Your task to perform on an android device: Open CNN.com Image 0: 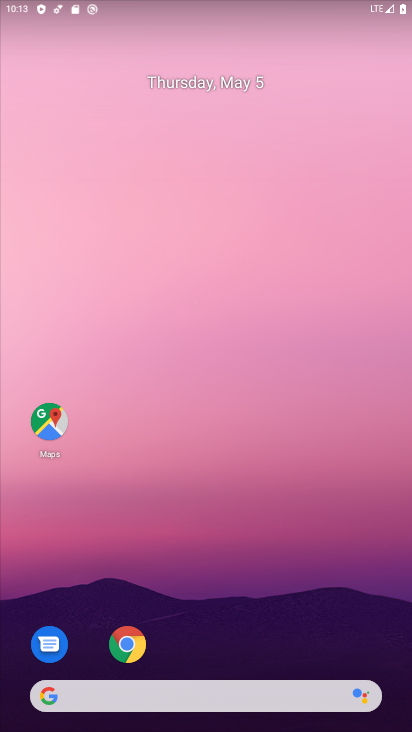
Step 0: click (139, 642)
Your task to perform on an android device: Open CNN.com Image 1: 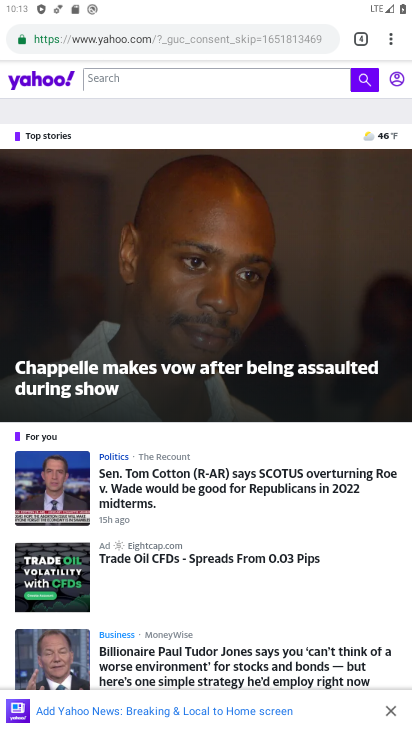
Step 1: click (359, 32)
Your task to perform on an android device: Open CNN.com Image 2: 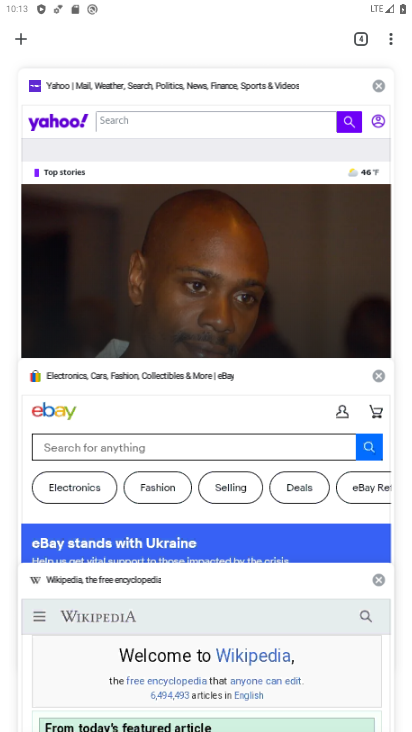
Step 2: click (26, 37)
Your task to perform on an android device: Open CNN.com Image 3: 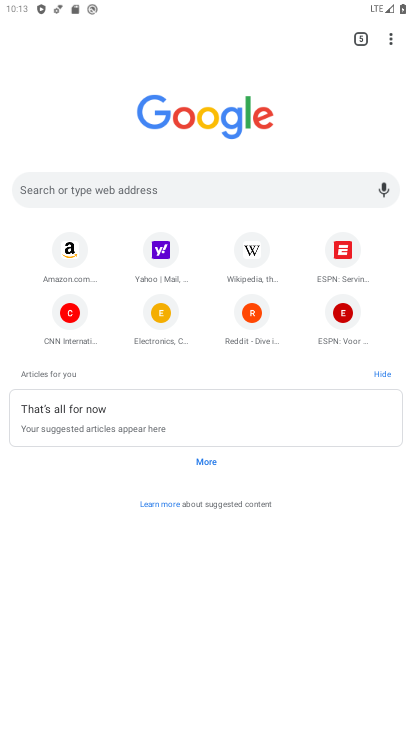
Step 3: click (62, 308)
Your task to perform on an android device: Open CNN.com Image 4: 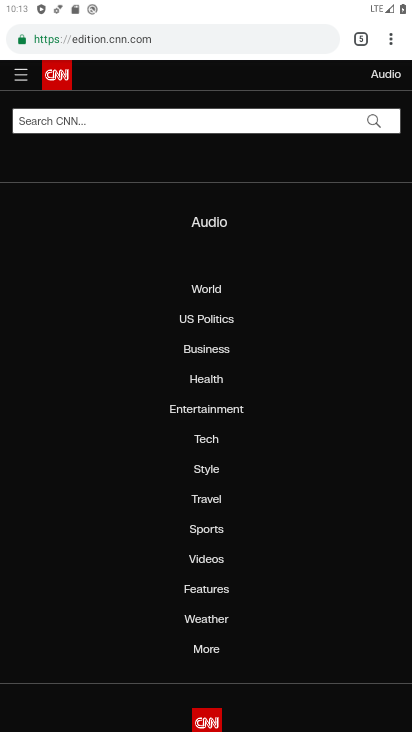
Step 4: task complete